Your task to perform on an android device: Open maps Image 0: 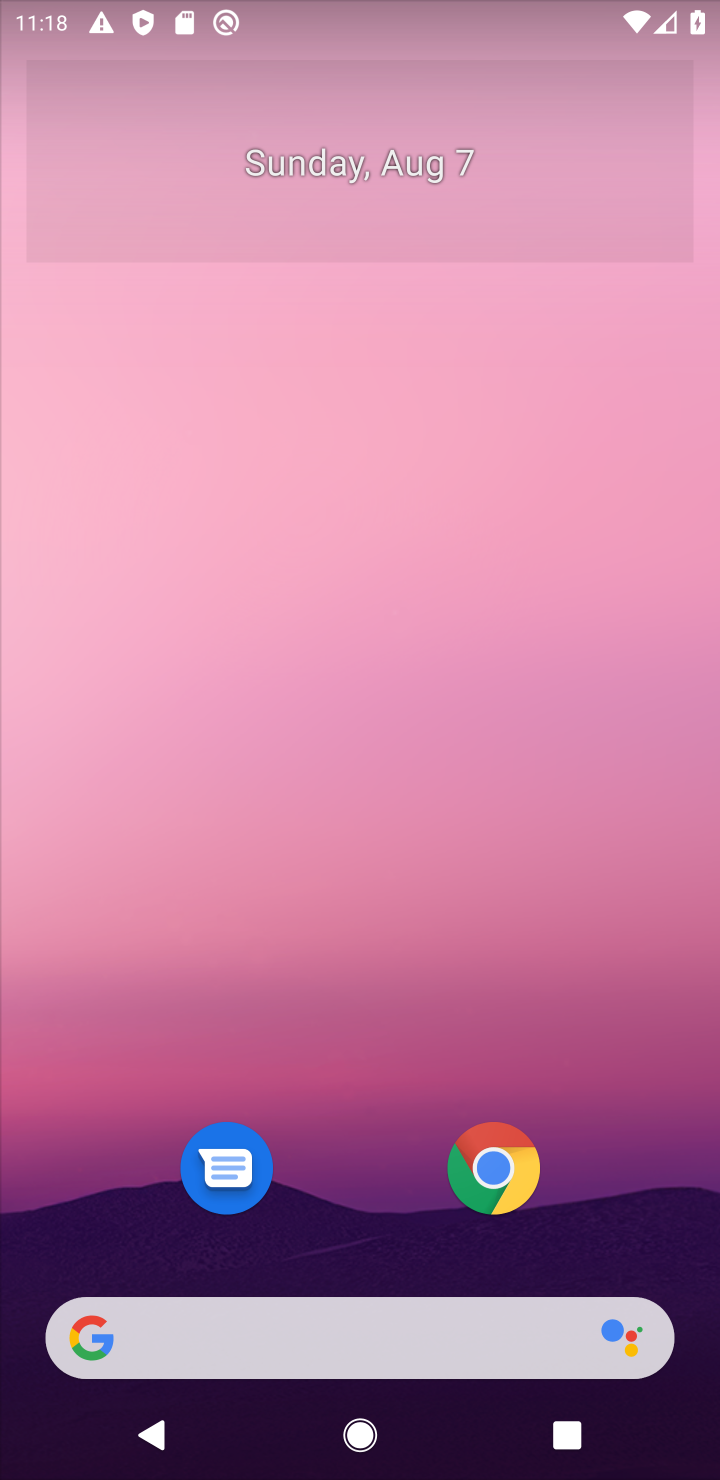
Step 0: click (157, 981)
Your task to perform on an android device: Open maps Image 1: 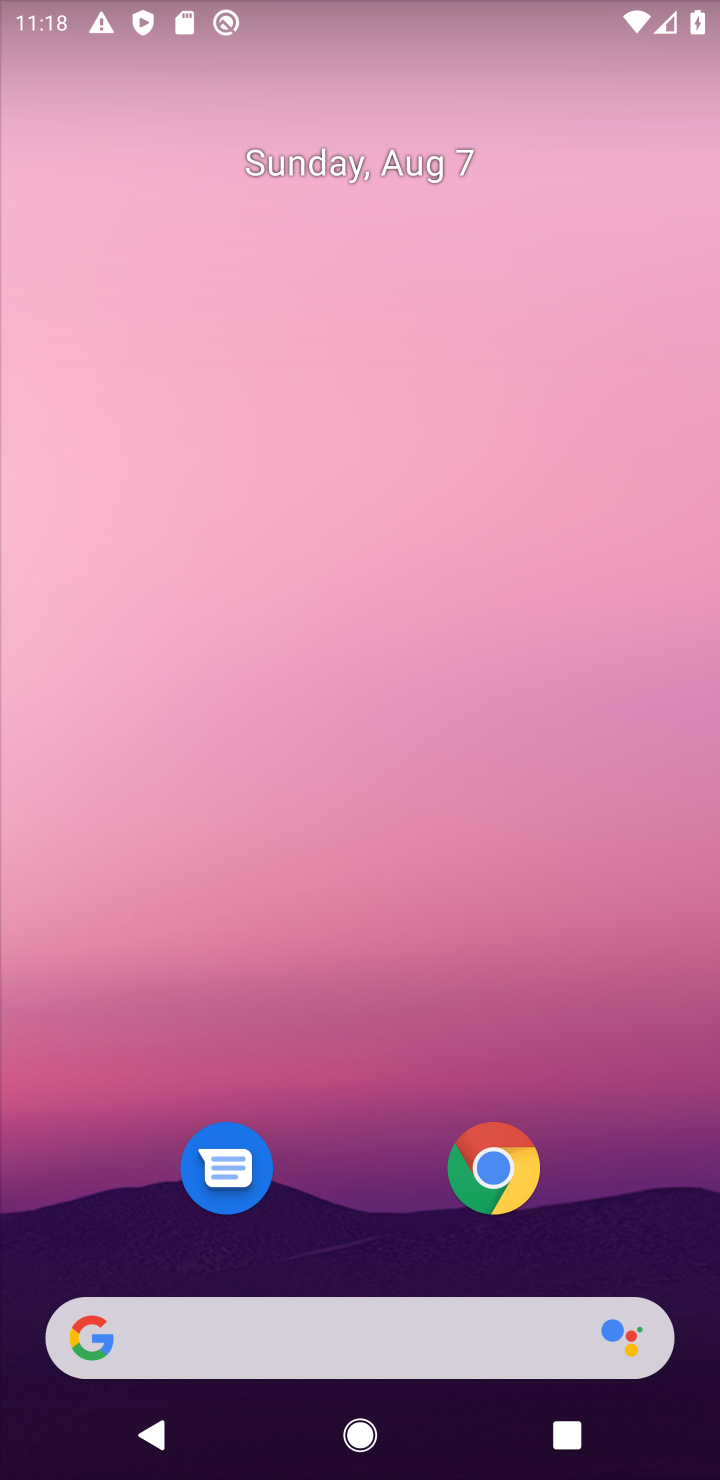
Step 1: drag from (156, 1186) to (254, 805)
Your task to perform on an android device: Open maps Image 2: 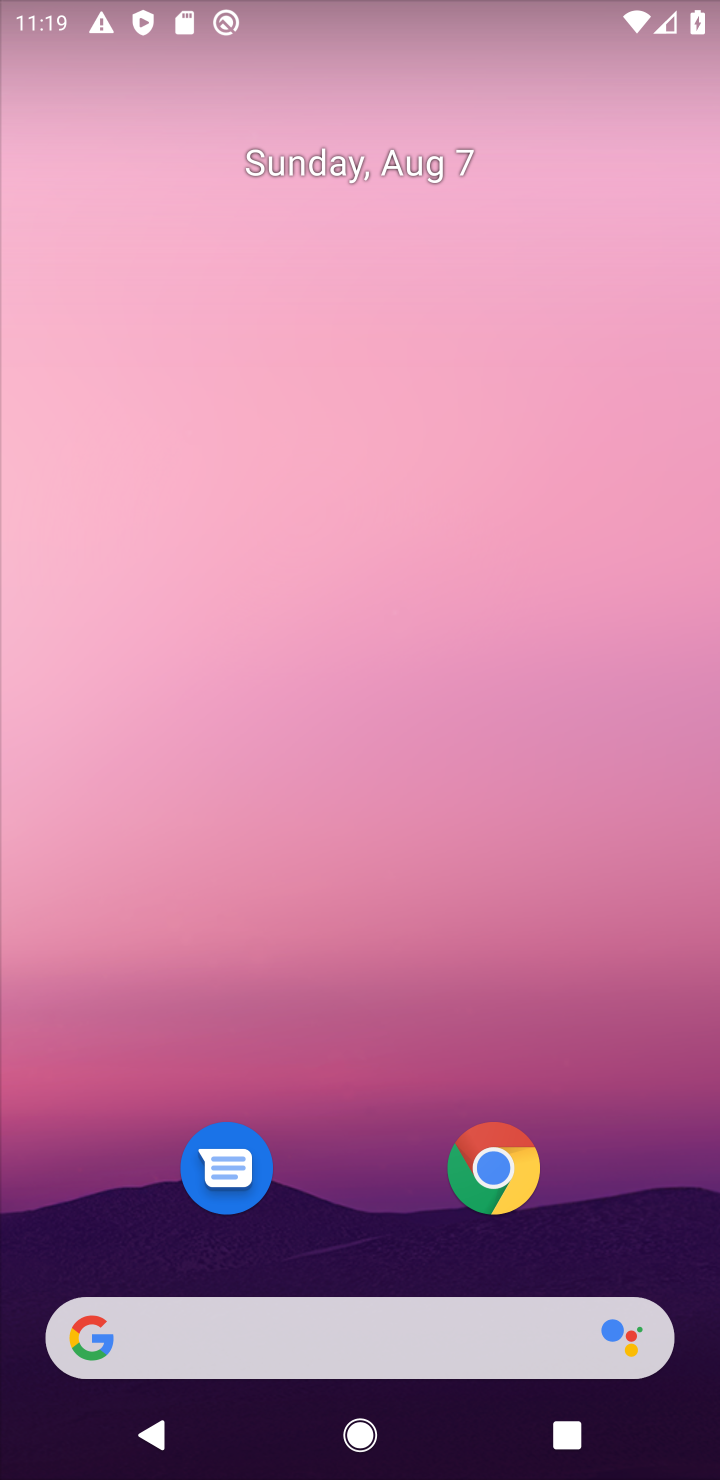
Step 2: drag from (70, 1393) to (319, 457)
Your task to perform on an android device: Open maps Image 3: 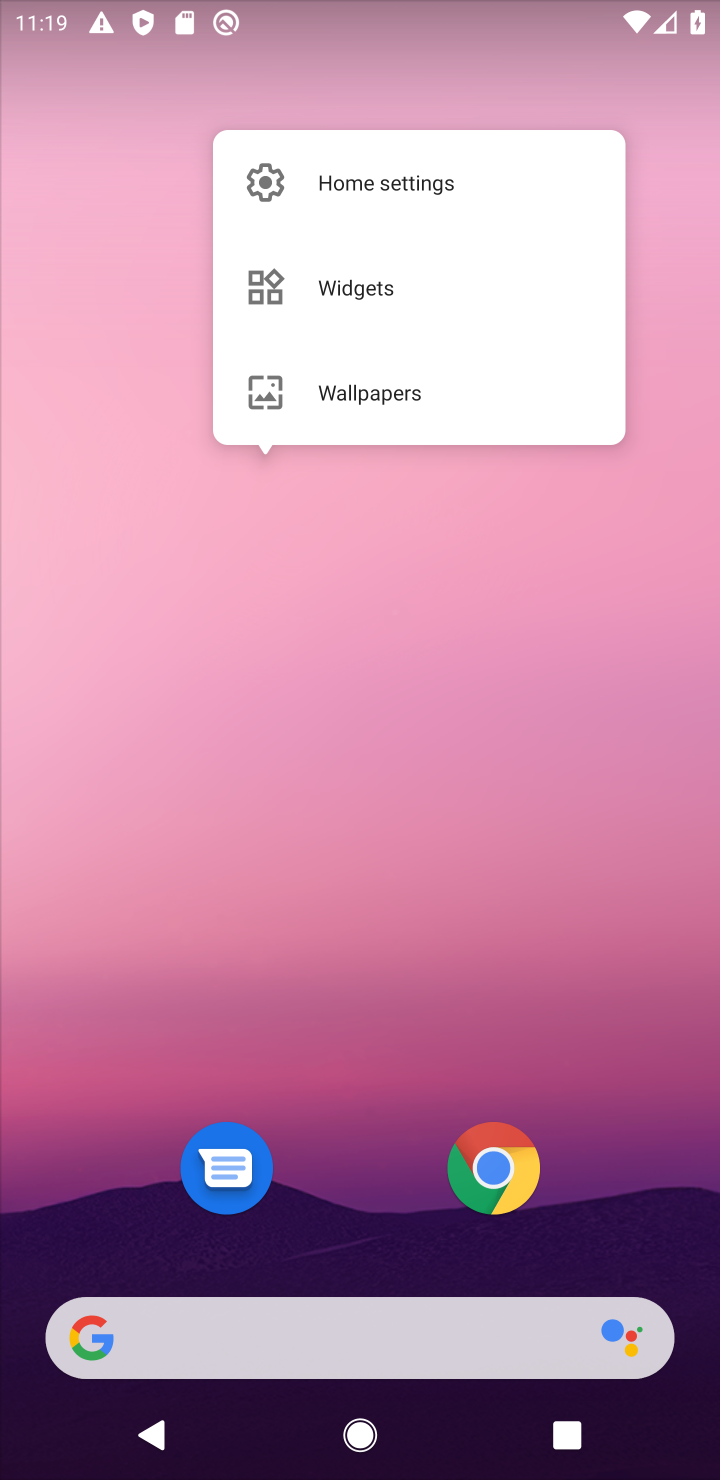
Step 3: click (46, 1382)
Your task to perform on an android device: Open maps Image 4: 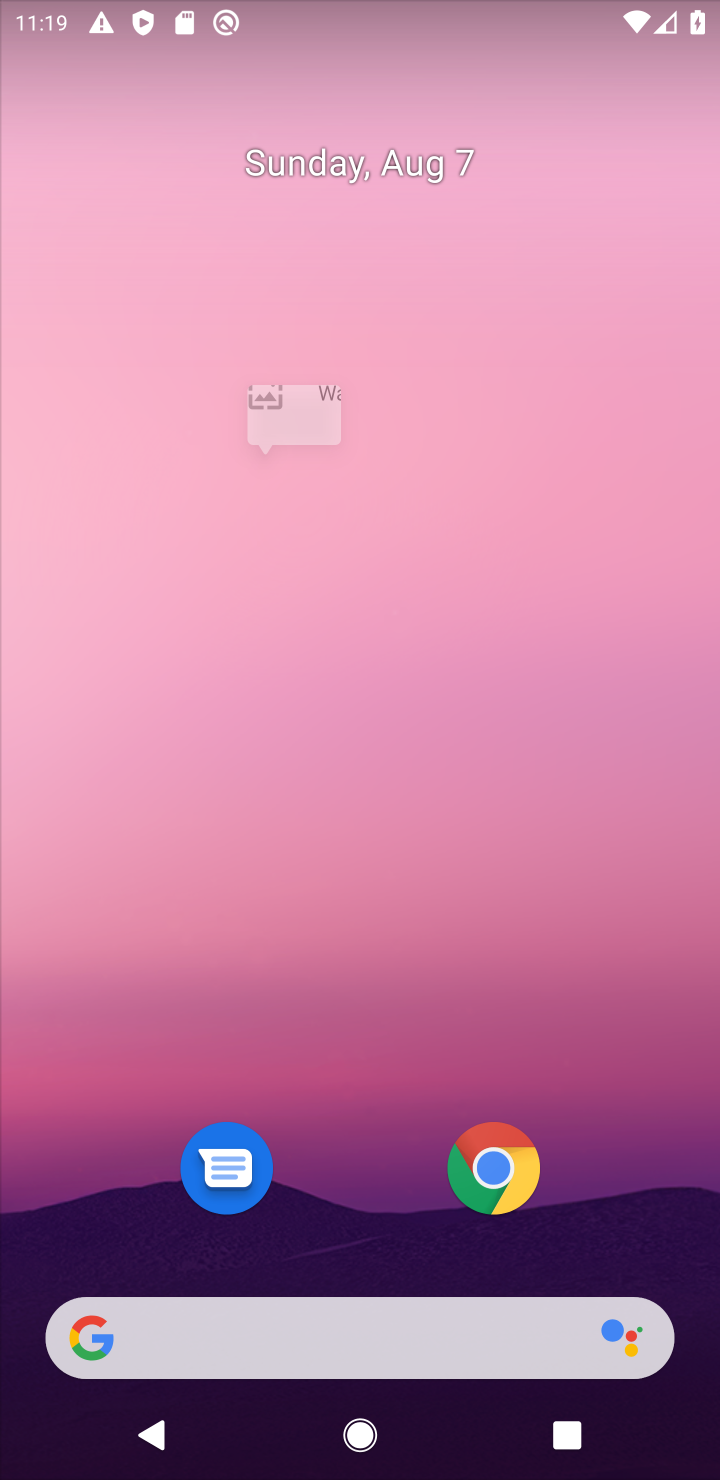
Step 4: drag from (46, 1382) to (417, 384)
Your task to perform on an android device: Open maps Image 5: 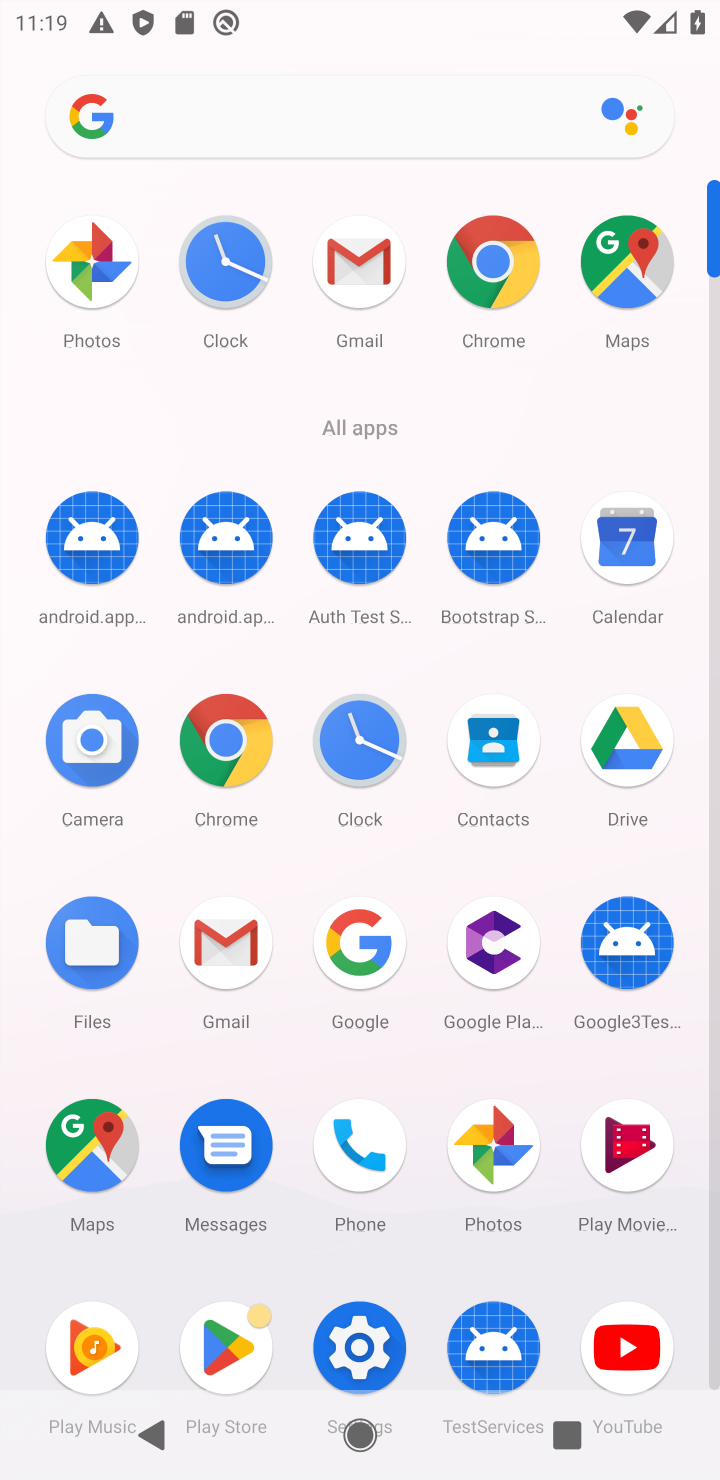
Step 5: click (643, 267)
Your task to perform on an android device: Open maps Image 6: 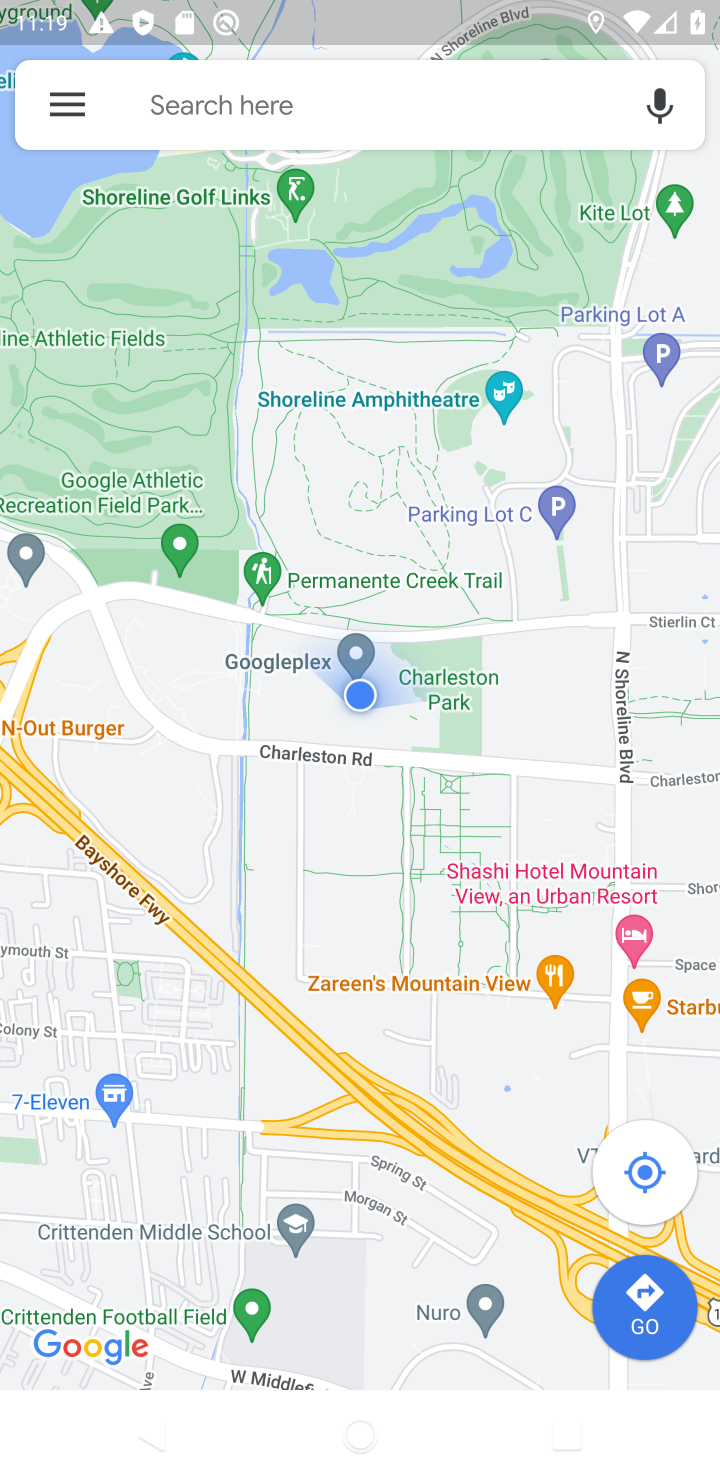
Step 6: task complete